Your task to perform on an android device: Go to Google maps Image 0: 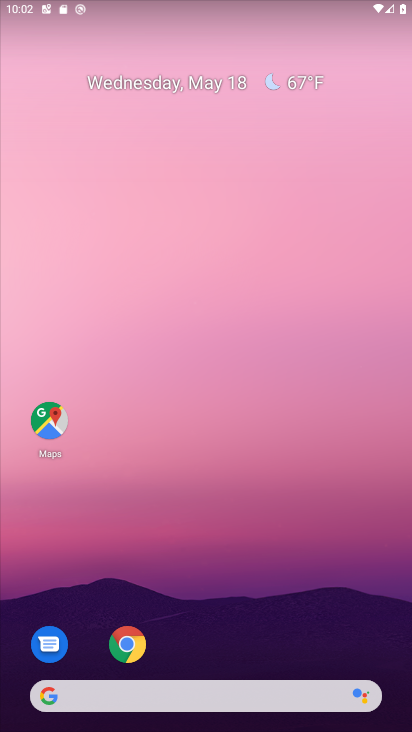
Step 0: click (47, 419)
Your task to perform on an android device: Go to Google maps Image 1: 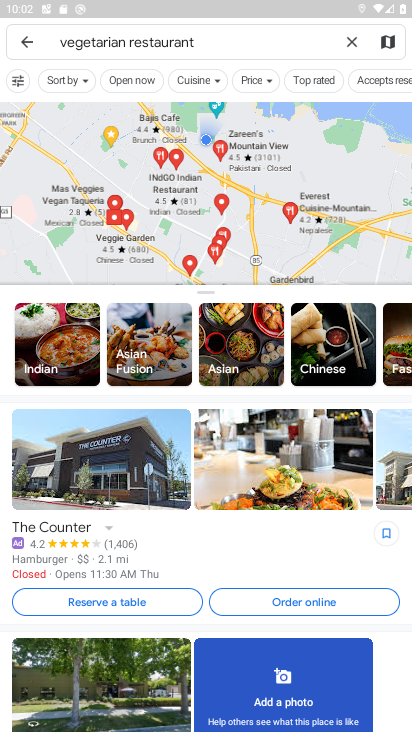
Step 1: click (352, 43)
Your task to perform on an android device: Go to Google maps Image 2: 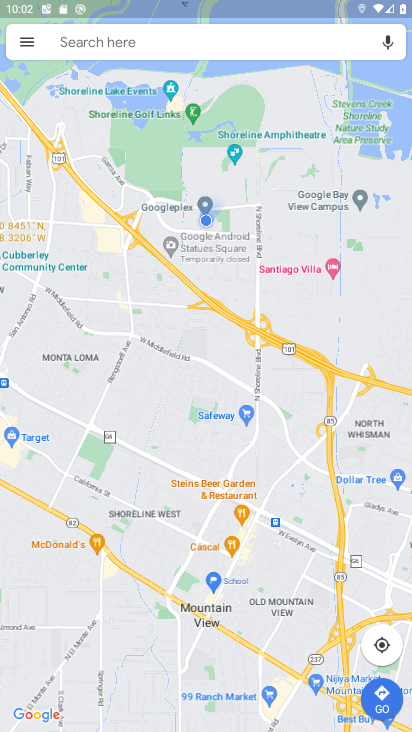
Step 2: task complete